Your task to perform on an android device: Go to calendar. Show me events next week Image 0: 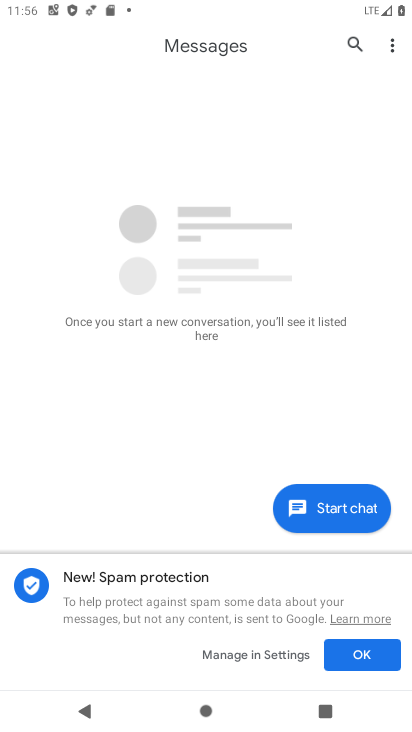
Step 0: press home button
Your task to perform on an android device: Go to calendar. Show me events next week Image 1: 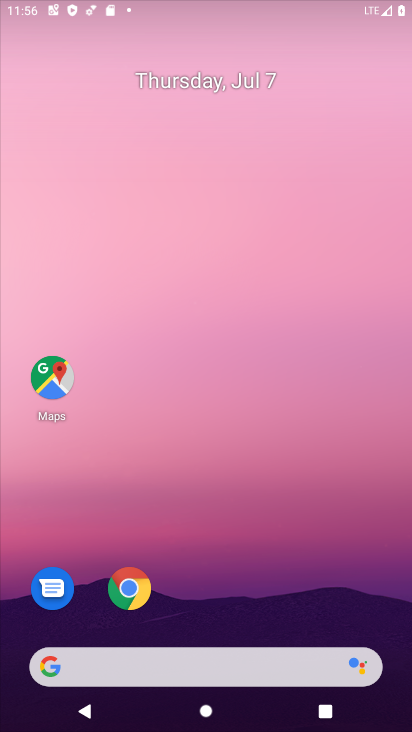
Step 1: drag from (205, 581) to (262, 119)
Your task to perform on an android device: Go to calendar. Show me events next week Image 2: 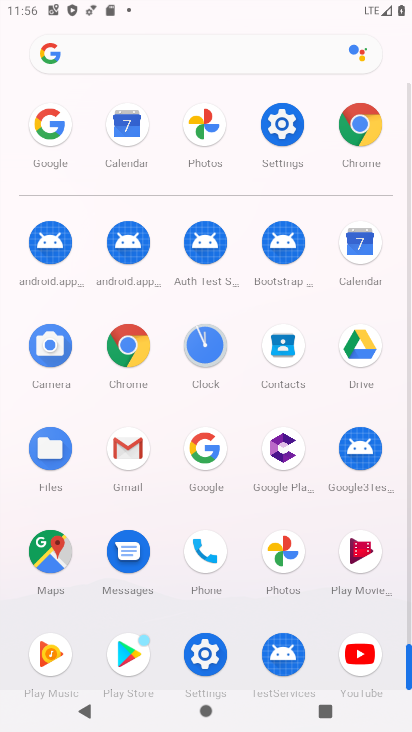
Step 2: click (366, 249)
Your task to perform on an android device: Go to calendar. Show me events next week Image 3: 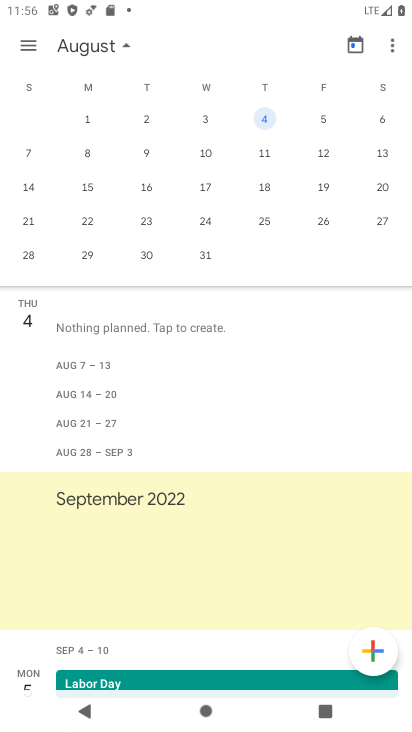
Step 3: drag from (23, 265) to (379, 229)
Your task to perform on an android device: Go to calendar. Show me events next week Image 4: 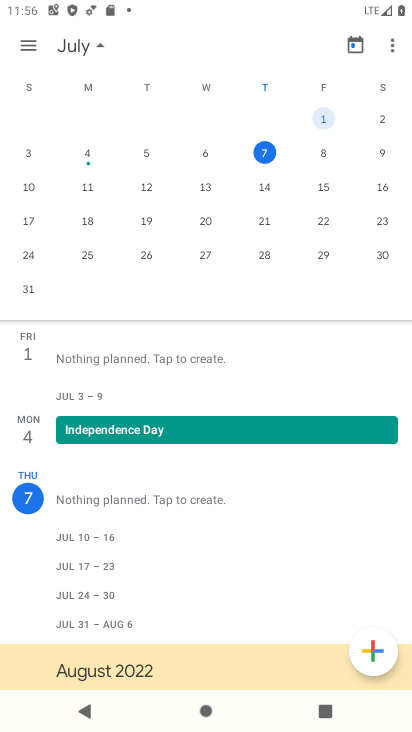
Step 4: click (261, 182)
Your task to perform on an android device: Go to calendar. Show me events next week Image 5: 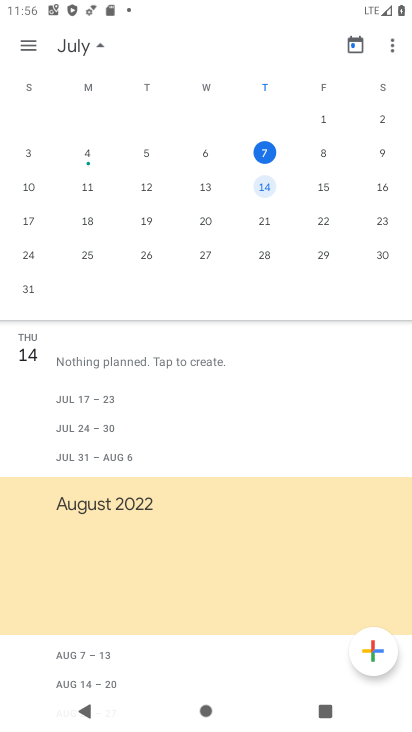
Step 5: task complete